Your task to perform on an android device: Do I have any events this weekend? Image 0: 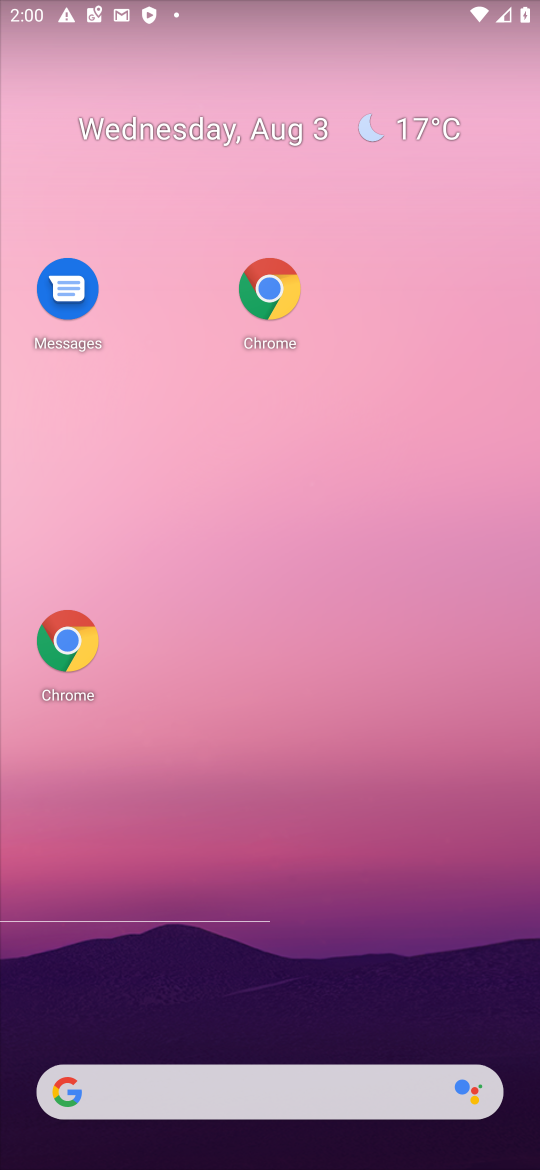
Step 0: drag from (362, 1031) to (358, 35)
Your task to perform on an android device: Do I have any events this weekend? Image 1: 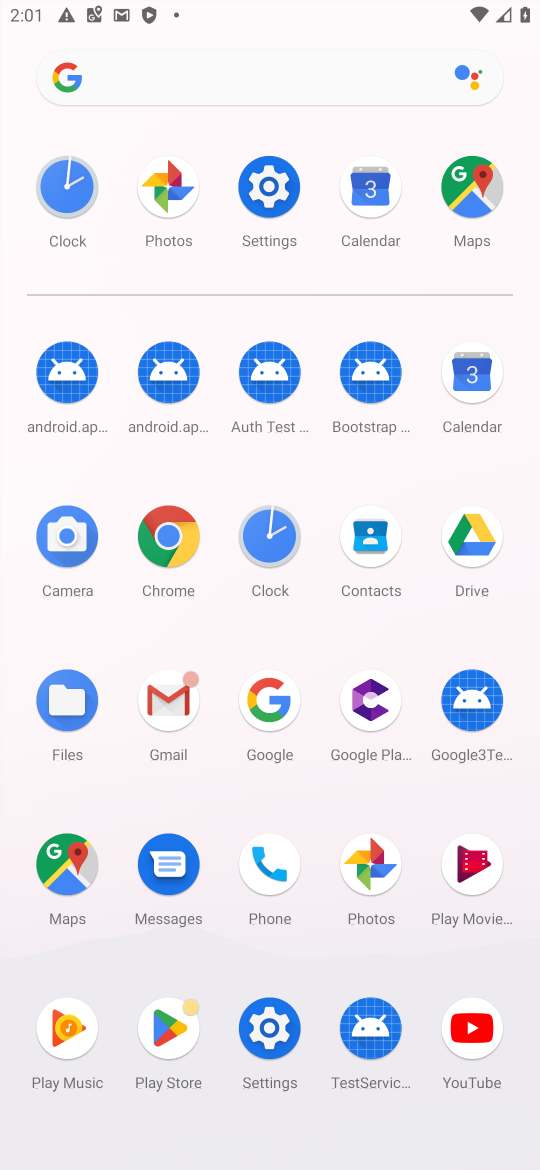
Step 1: click (371, 241)
Your task to perform on an android device: Do I have any events this weekend? Image 2: 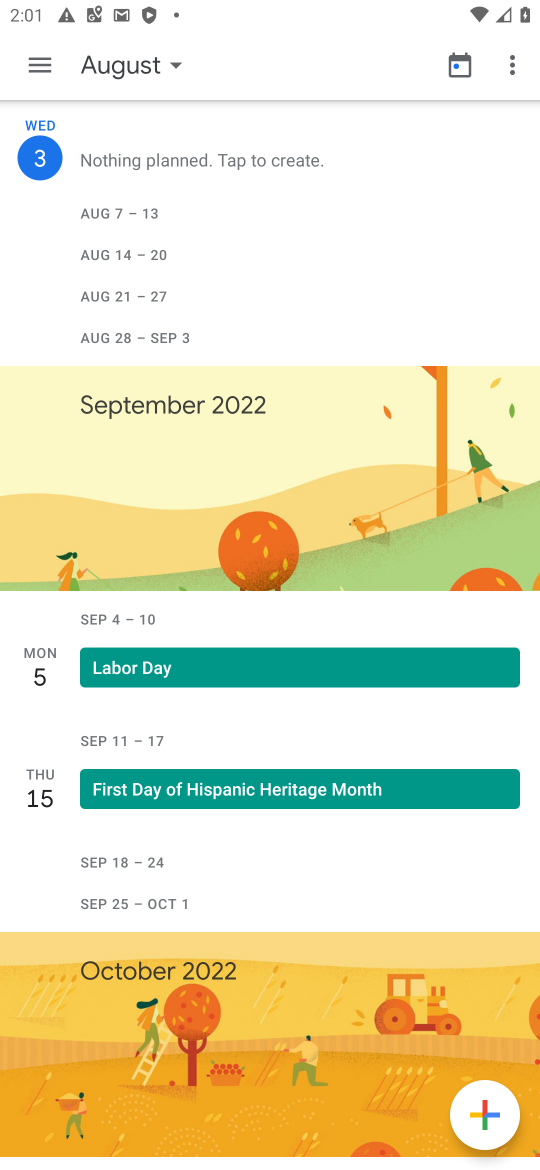
Step 2: task complete